Your task to perform on an android device: manage bookmarks in the chrome app Image 0: 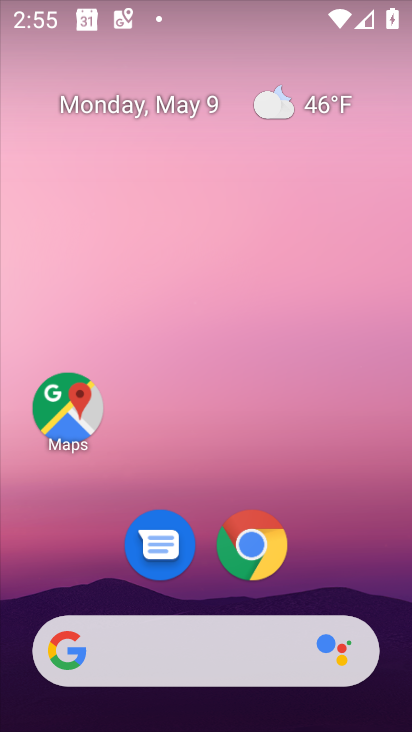
Step 0: click (247, 553)
Your task to perform on an android device: manage bookmarks in the chrome app Image 1: 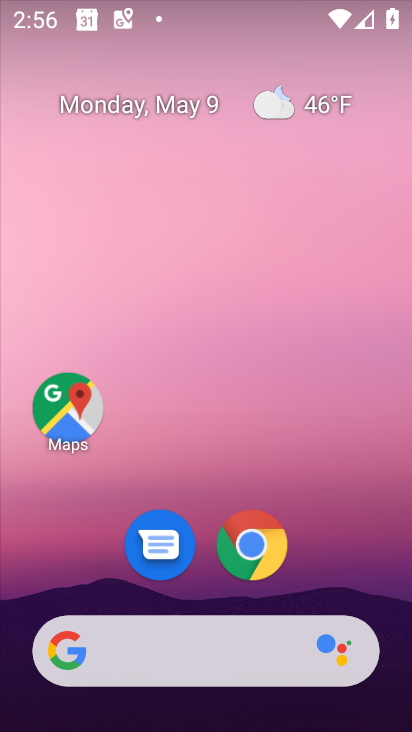
Step 1: click (238, 562)
Your task to perform on an android device: manage bookmarks in the chrome app Image 2: 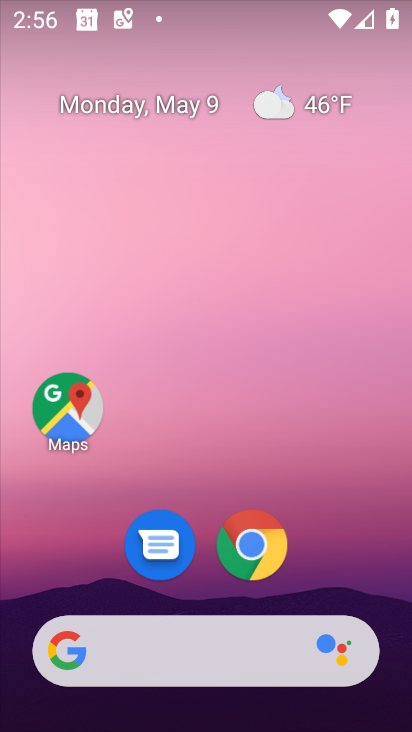
Step 2: click (260, 541)
Your task to perform on an android device: manage bookmarks in the chrome app Image 3: 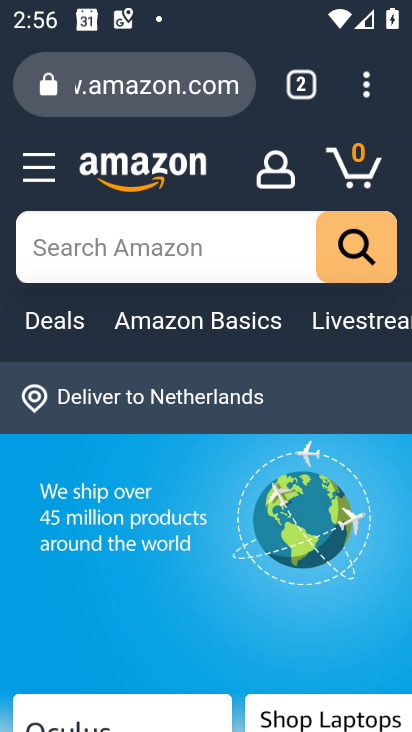
Step 3: drag from (369, 85) to (199, 310)
Your task to perform on an android device: manage bookmarks in the chrome app Image 4: 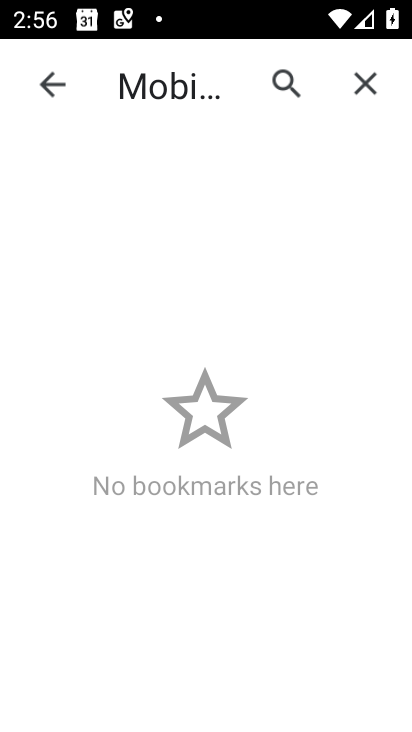
Step 4: click (40, 80)
Your task to perform on an android device: manage bookmarks in the chrome app Image 5: 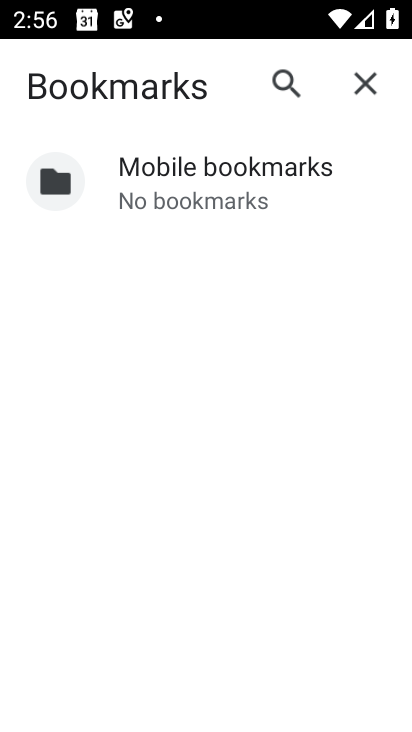
Step 5: task complete